Your task to perform on an android device: Search for sushi restaurants on Maps Image 0: 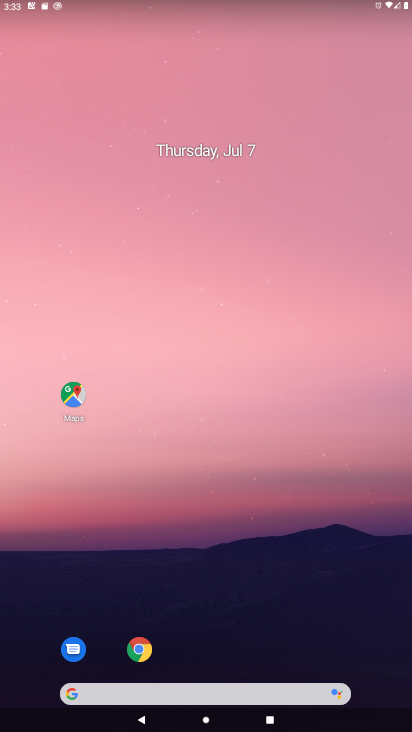
Step 0: click (69, 389)
Your task to perform on an android device: Search for sushi restaurants on Maps Image 1: 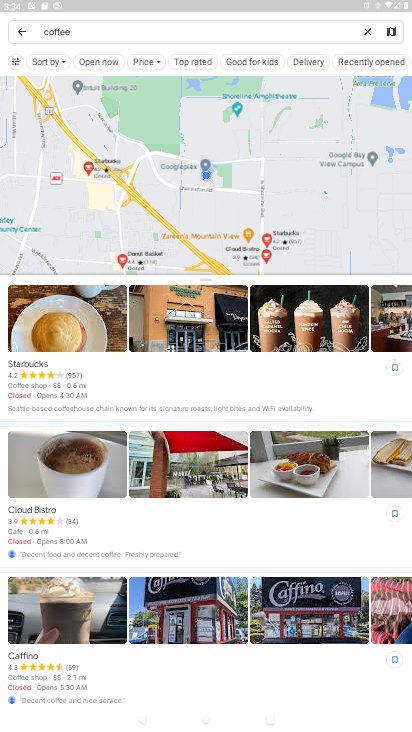
Step 1: click (359, 25)
Your task to perform on an android device: Search for sushi restaurants on Maps Image 2: 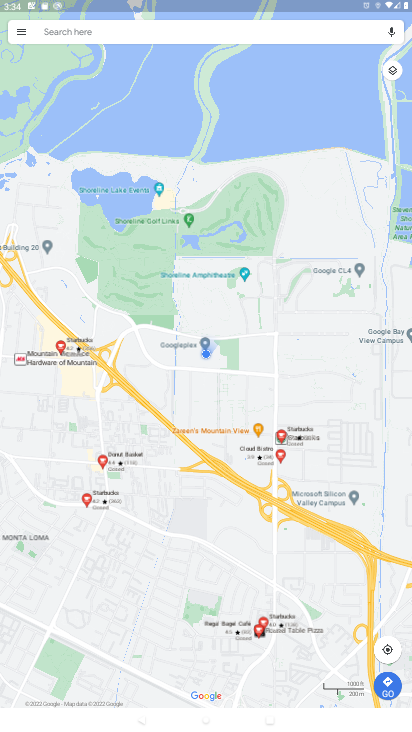
Step 2: click (134, 36)
Your task to perform on an android device: Search for sushi restaurants on Maps Image 3: 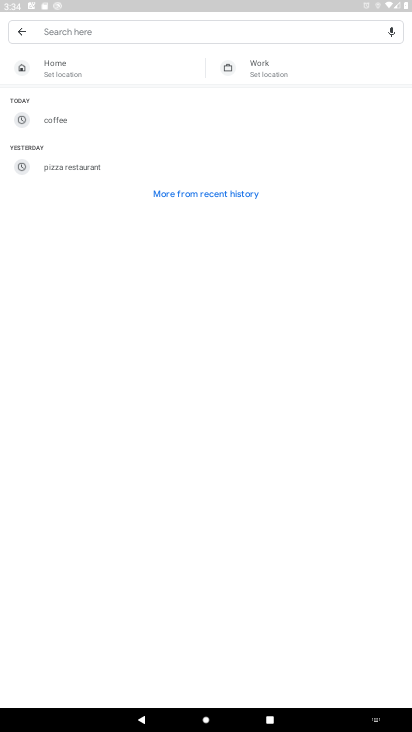
Step 3: type "sushi restaurants"
Your task to perform on an android device: Search for sushi restaurants on Maps Image 4: 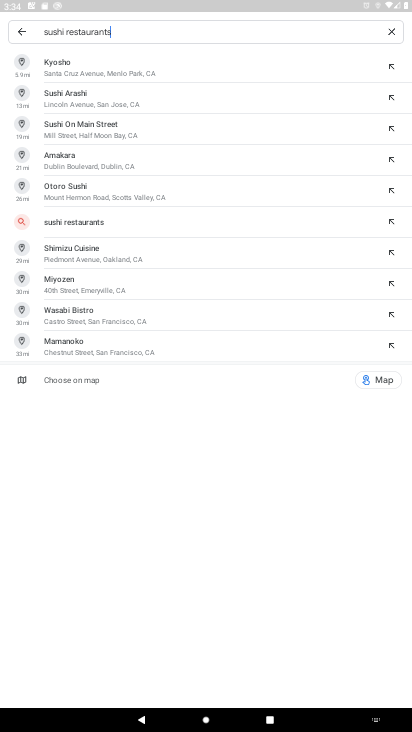
Step 4: click (94, 228)
Your task to perform on an android device: Search for sushi restaurants on Maps Image 5: 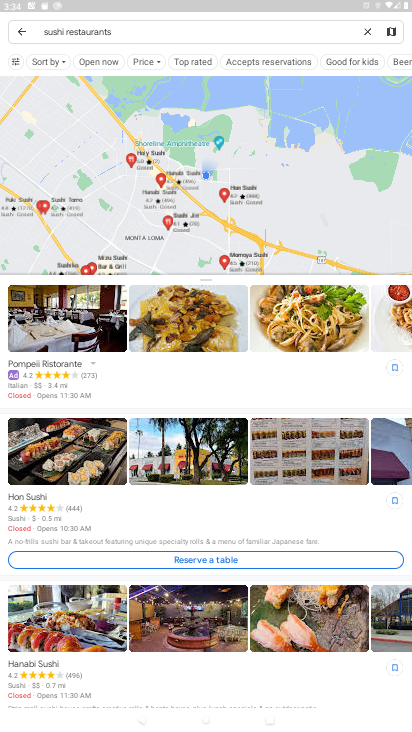
Step 5: task complete